Your task to perform on an android device: change notification settings in the gmail app Image 0: 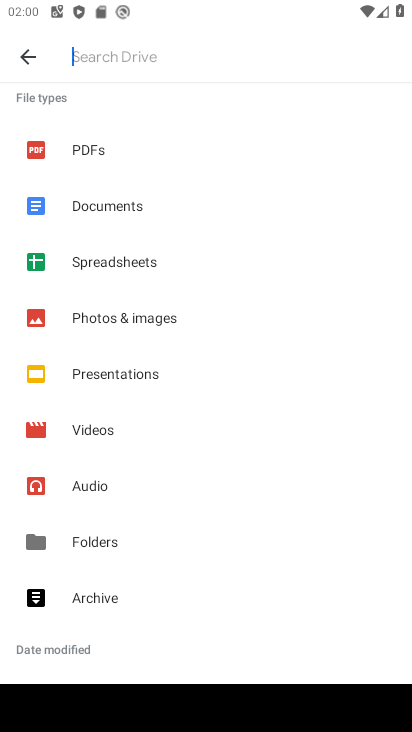
Step 0: press home button
Your task to perform on an android device: change notification settings in the gmail app Image 1: 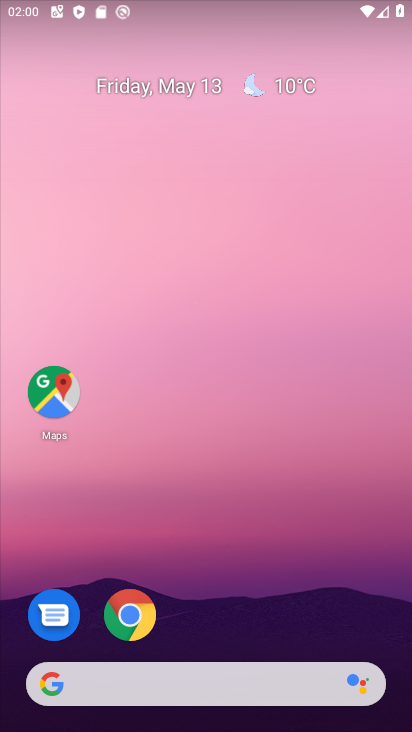
Step 1: drag from (204, 634) to (146, 184)
Your task to perform on an android device: change notification settings in the gmail app Image 2: 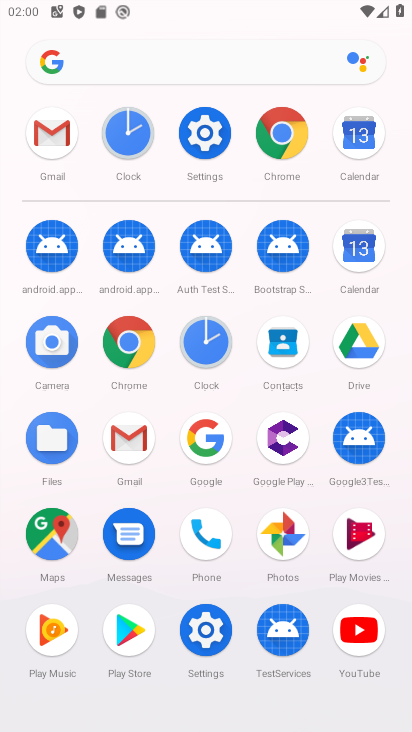
Step 2: click (128, 442)
Your task to perform on an android device: change notification settings in the gmail app Image 3: 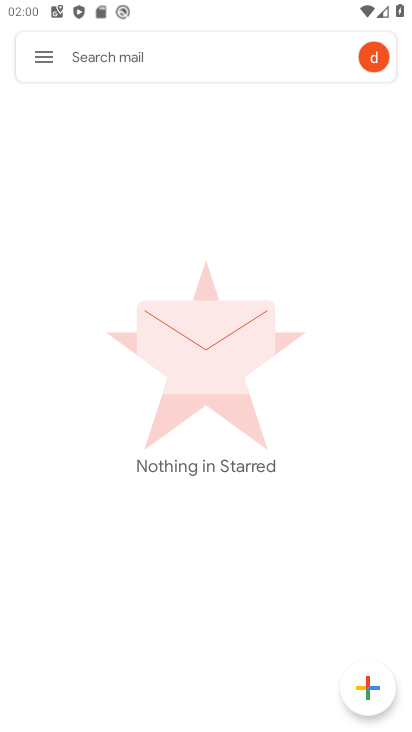
Step 3: click (50, 60)
Your task to perform on an android device: change notification settings in the gmail app Image 4: 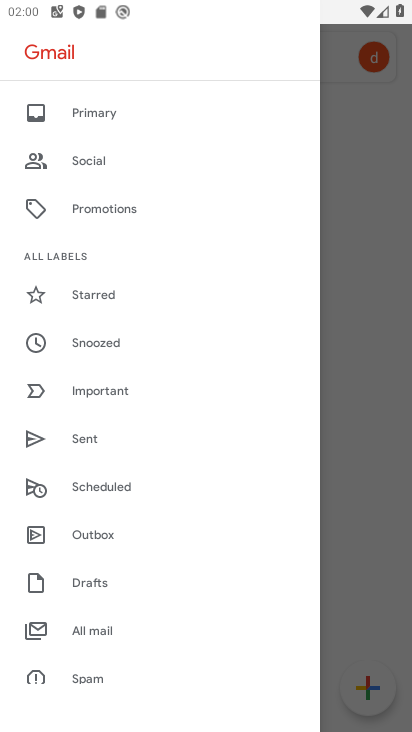
Step 4: drag from (141, 631) to (87, 162)
Your task to perform on an android device: change notification settings in the gmail app Image 5: 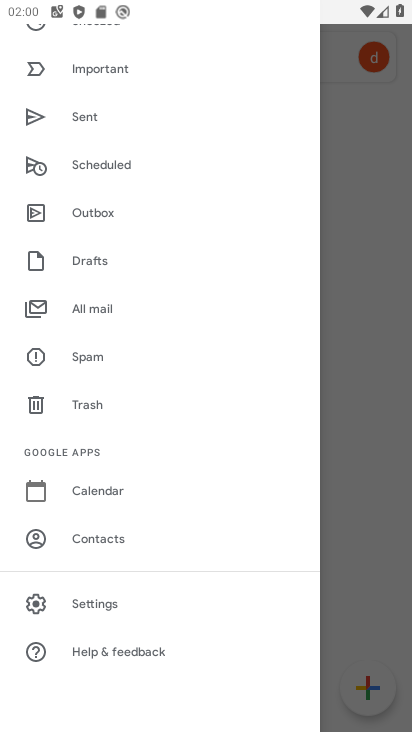
Step 5: click (75, 598)
Your task to perform on an android device: change notification settings in the gmail app Image 6: 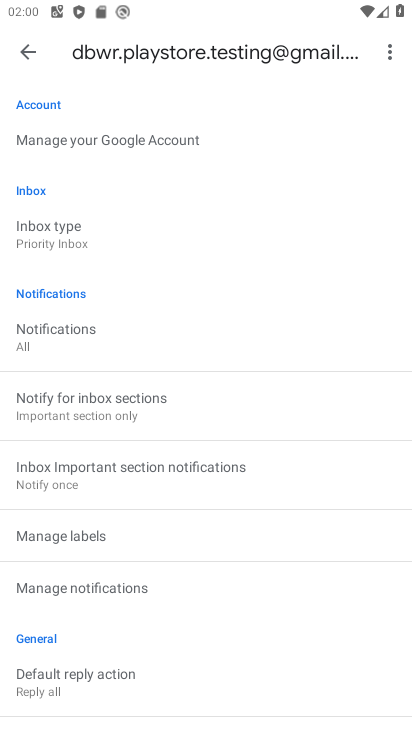
Step 6: click (71, 343)
Your task to perform on an android device: change notification settings in the gmail app Image 7: 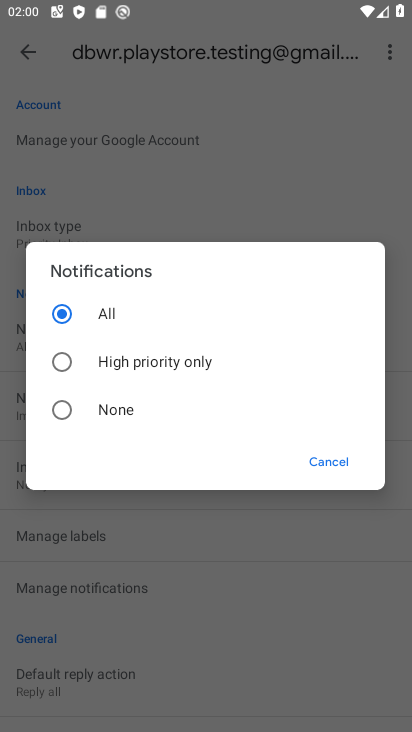
Step 7: click (62, 412)
Your task to perform on an android device: change notification settings in the gmail app Image 8: 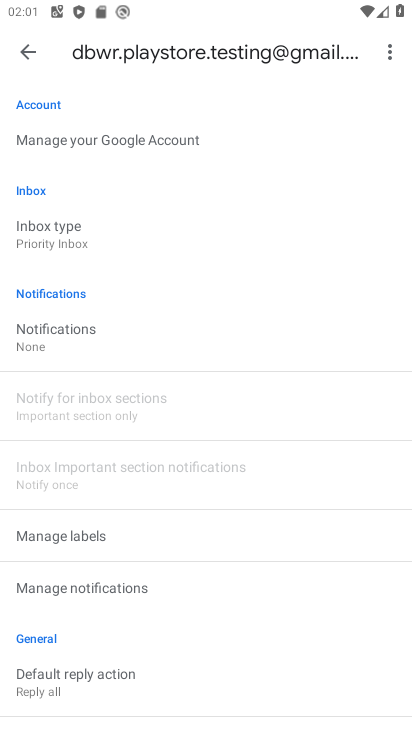
Step 8: task complete